Your task to perform on an android device: toggle javascript in the chrome app Image 0: 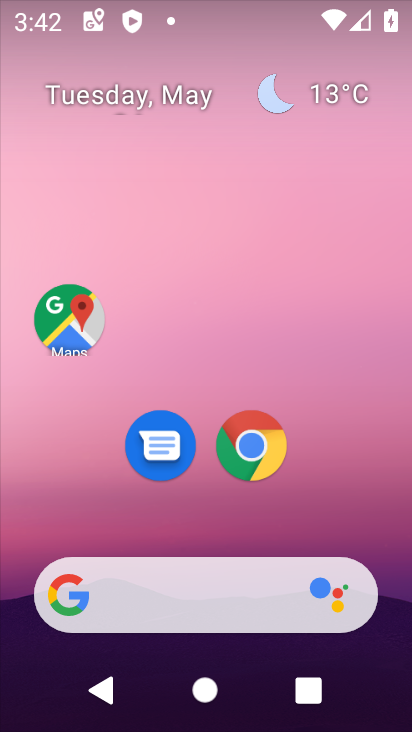
Step 0: press home button
Your task to perform on an android device: toggle javascript in the chrome app Image 1: 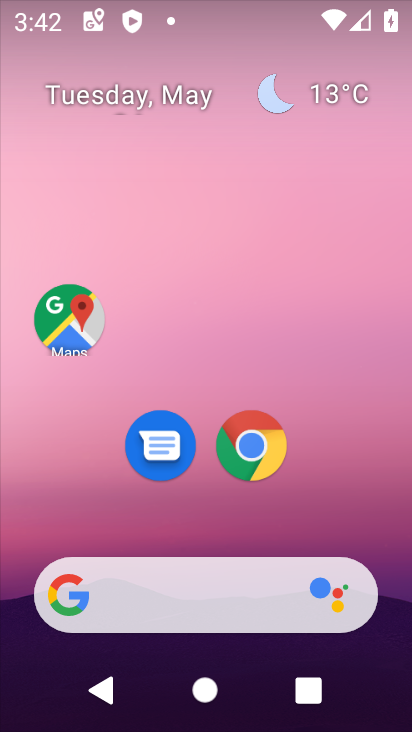
Step 1: click (248, 438)
Your task to perform on an android device: toggle javascript in the chrome app Image 2: 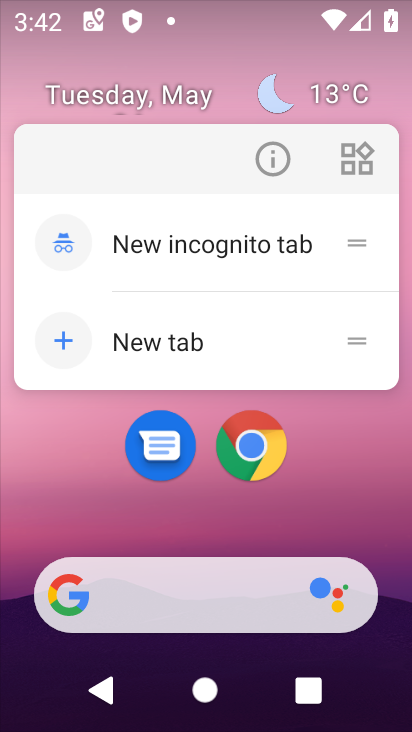
Step 2: click (249, 436)
Your task to perform on an android device: toggle javascript in the chrome app Image 3: 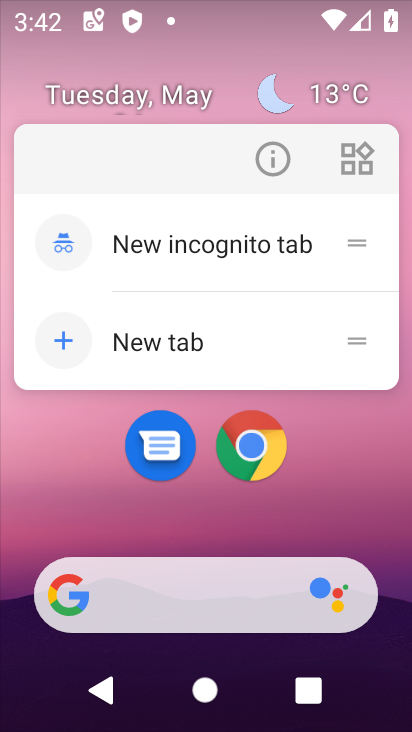
Step 3: click (247, 439)
Your task to perform on an android device: toggle javascript in the chrome app Image 4: 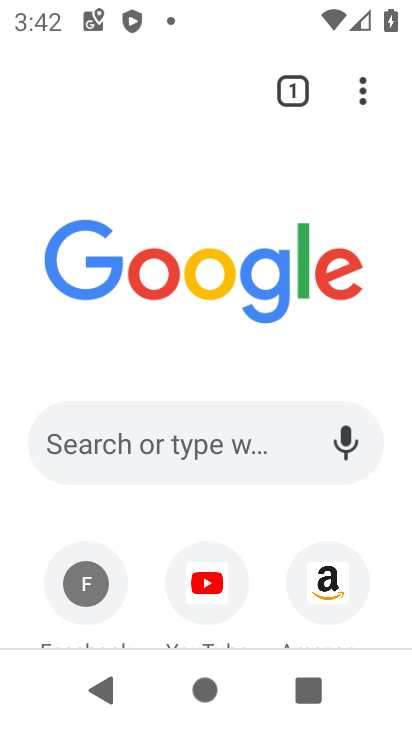
Step 4: drag from (142, 554) to (144, 431)
Your task to perform on an android device: toggle javascript in the chrome app Image 5: 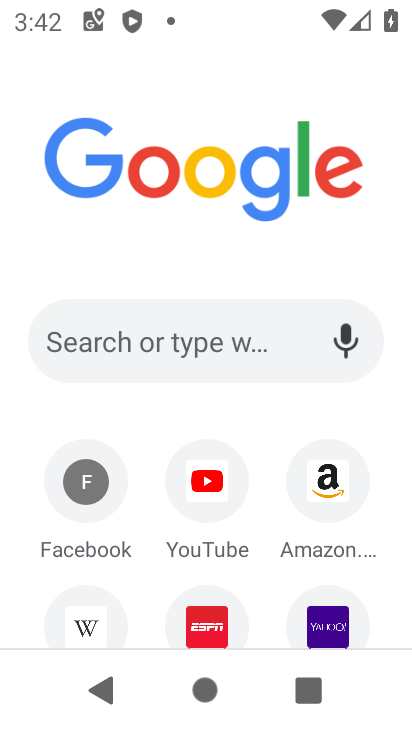
Step 5: drag from (287, 96) to (246, 510)
Your task to perform on an android device: toggle javascript in the chrome app Image 6: 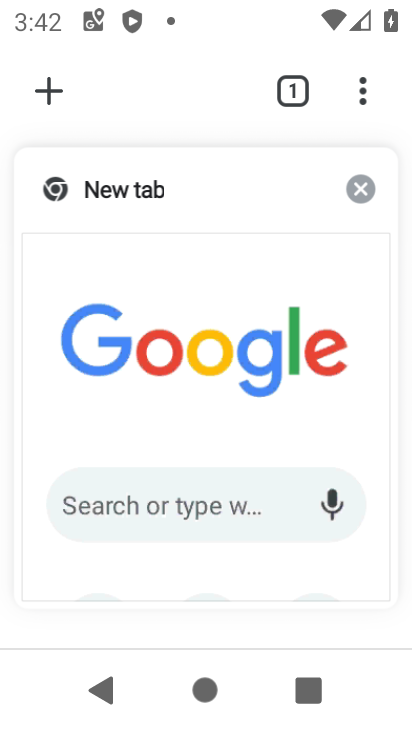
Step 6: click (175, 306)
Your task to perform on an android device: toggle javascript in the chrome app Image 7: 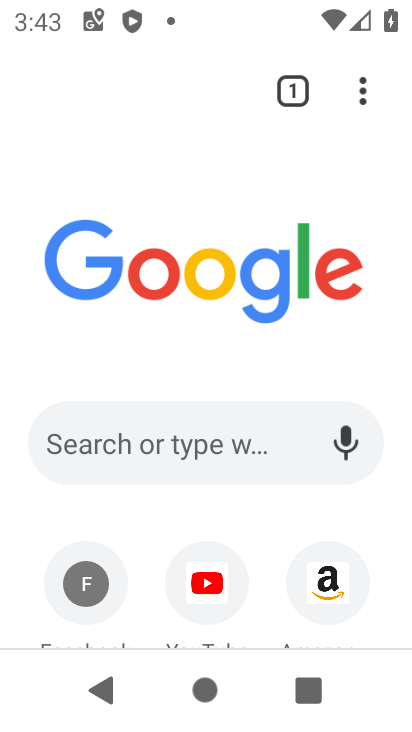
Step 7: click (362, 90)
Your task to perform on an android device: toggle javascript in the chrome app Image 8: 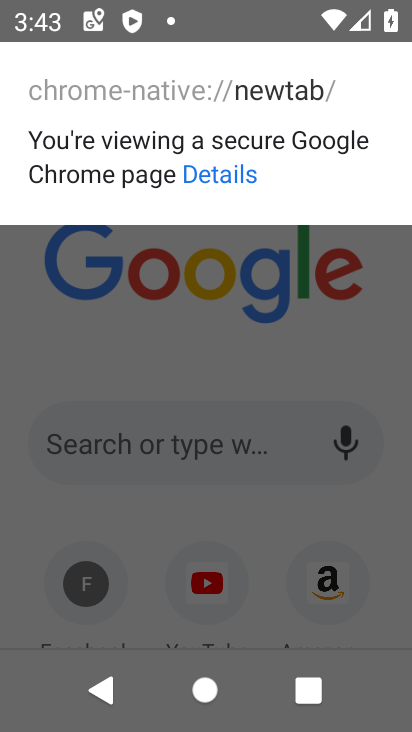
Step 8: click (238, 343)
Your task to perform on an android device: toggle javascript in the chrome app Image 9: 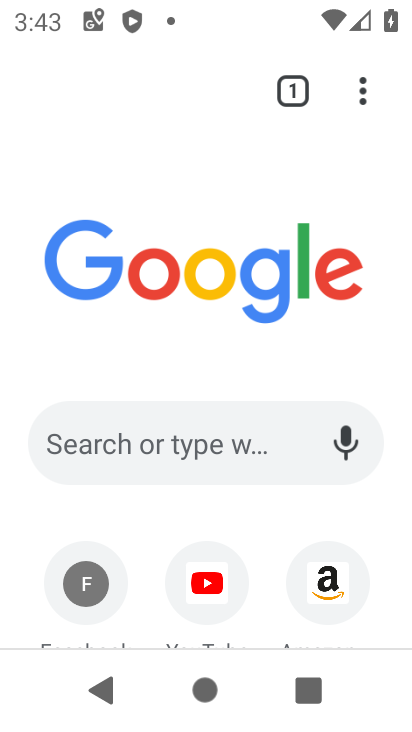
Step 9: click (365, 96)
Your task to perform on an android device: toggle javascript in the chrome app Image 10: 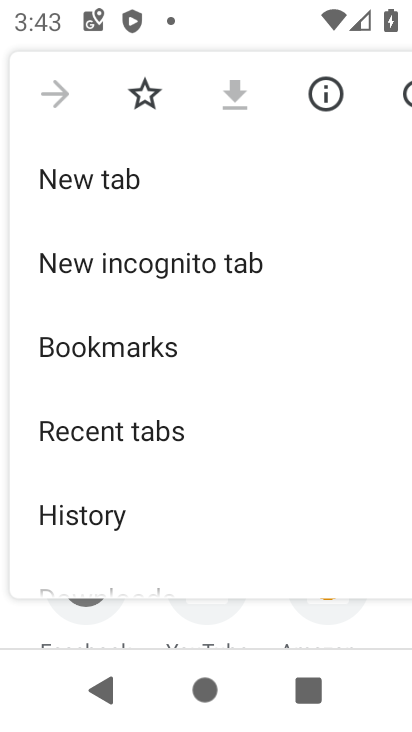
Step 10: drag from (186, 536) to (203, 97)
Your task to perform on an android device: toggle javascript in the chrome app Image 11: 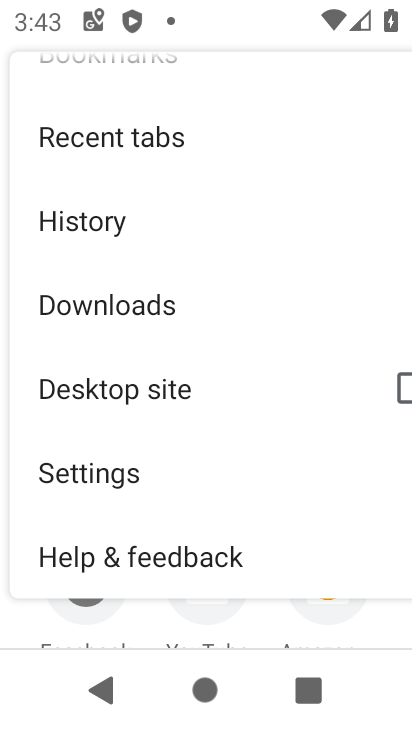
Step 11: click (150, 471)
Your task to perform on an android device: toggle javascript in the chrome app Image 12: 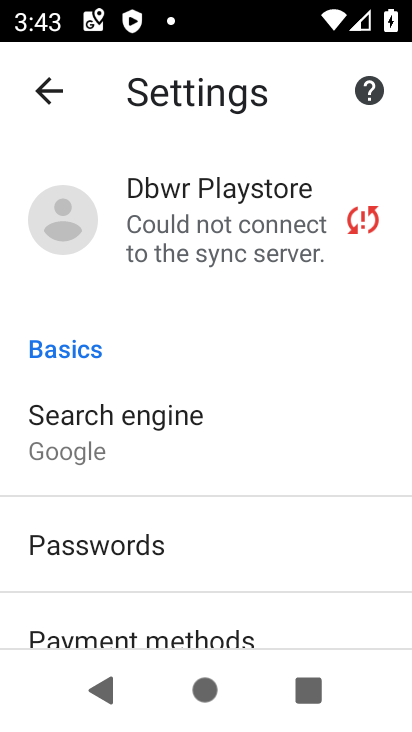
Step 12: drag from (269, 608) to (305, 113)
Your task to perform on an android device: toggle javascript in the chrome app Image 13: 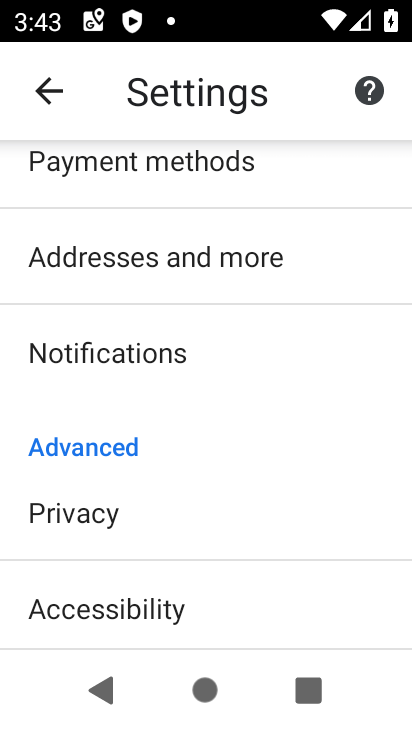
Step 13: drag from (213, 620) to (234, 125)
Your task to perform on an android device: toggle javascript in the chrome app Image 14: 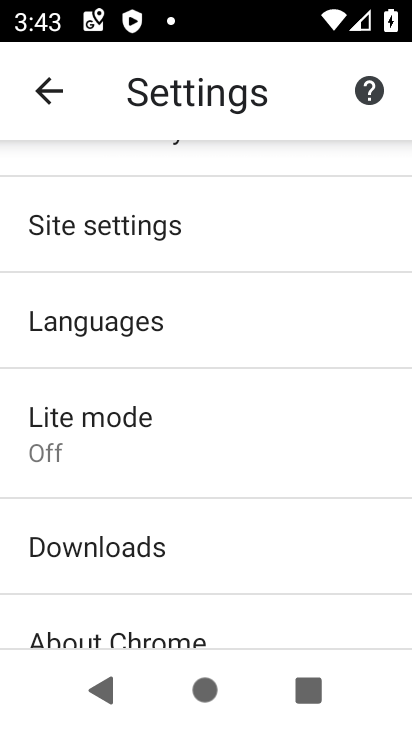
Step 14: click (205, 223)
Your task to perform on an android device: toggle javascript in the chrome app Image 15: 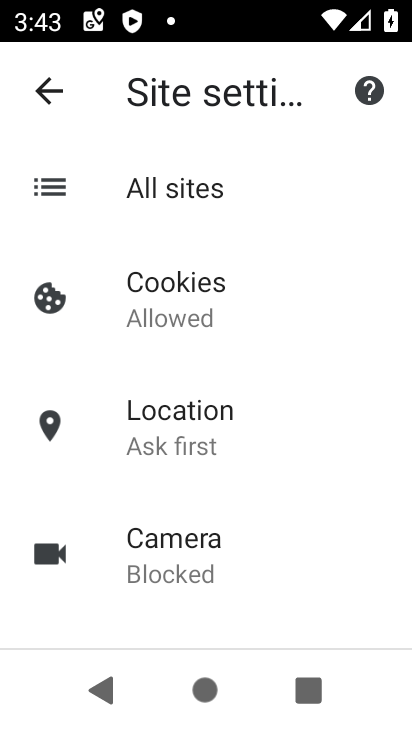
Step 15: drag from (268, 554) to (288, 83)
Your task to perform on an android device: toggle javascript in the chrome app Image 16: 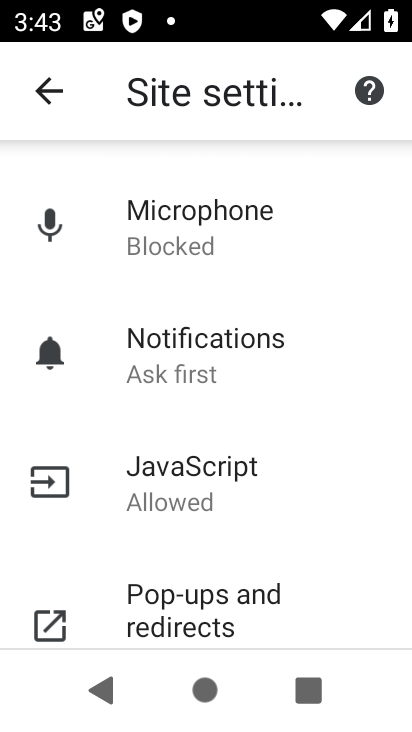
Step 16: click (232, 478)
Your task to perform on an android device: toggle javascript in the chrome app Image 17: 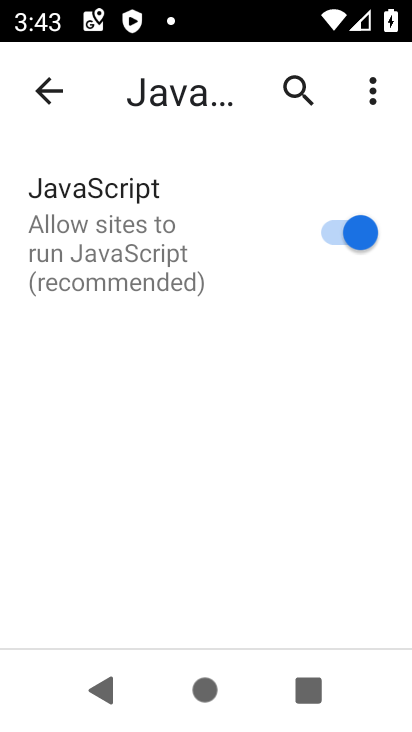
Step 17: click (337, 230)
Your task to perform on an android device: toggle javascript in the chrome app Image 18: 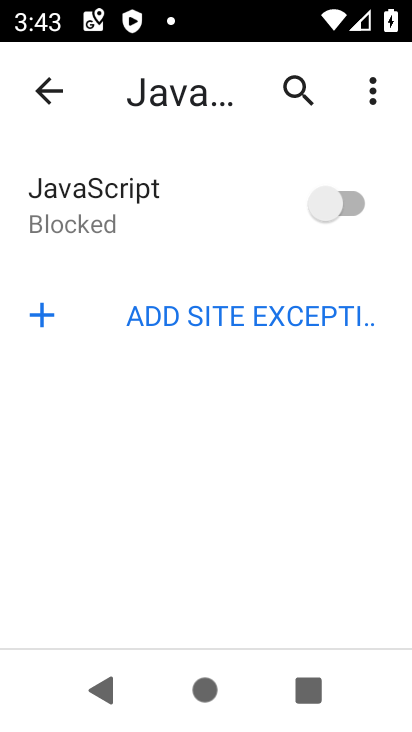
Step 18: task complete